Your task to perform on an android device: allow notifications from all sites in the chrome app Image 0: 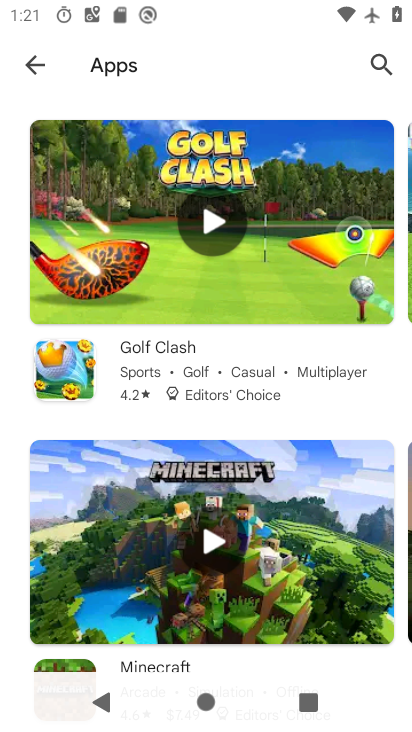
Step 0: press home button
Your task to perform on an android device: allow notifications from all sites in the chrome app Image 1: 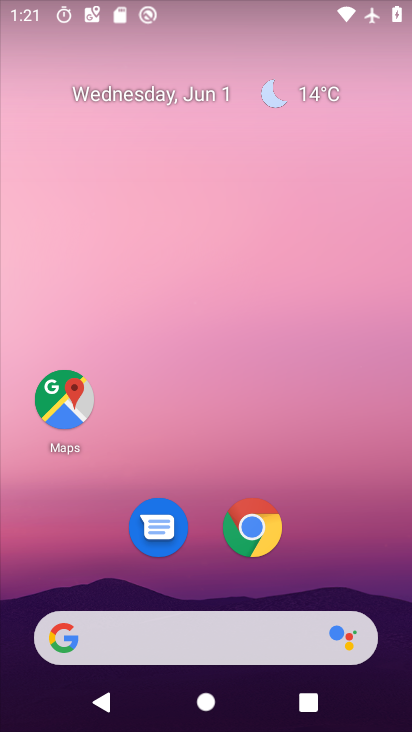
Step 1: click (258, 528)
Your task to perform on an android device: allow notifications from all sites in the chrome app Image 2: 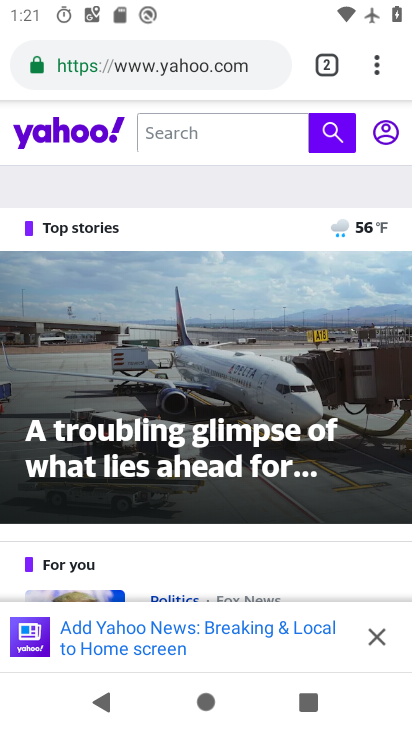
Step 2: click (376, 71)
Your task to perform on an android device: allow notifications from all sites in the chrome app Image 3: 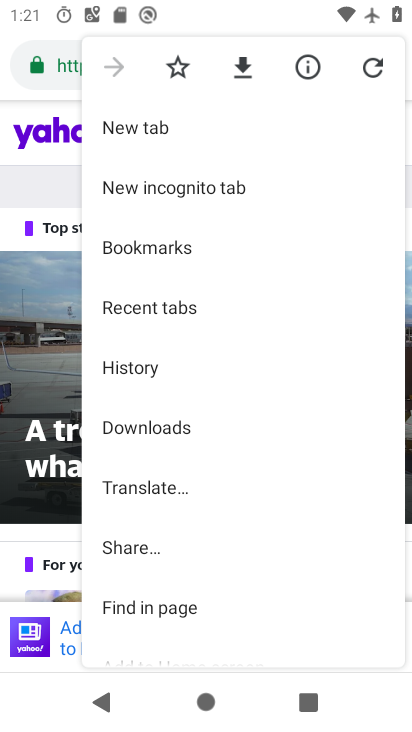
Step 3: drag from (271, 559) to (278, 166)
Your task to perform on an android device: allow notifications from all sites in the chrome app Image 4: 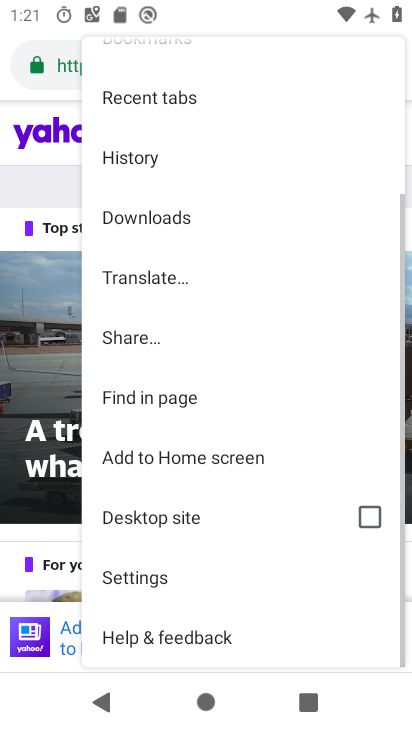
Step 4: click (147, 580)
Your task to perform on an android device: allow notifications from all sites in the chrome app Image 5: 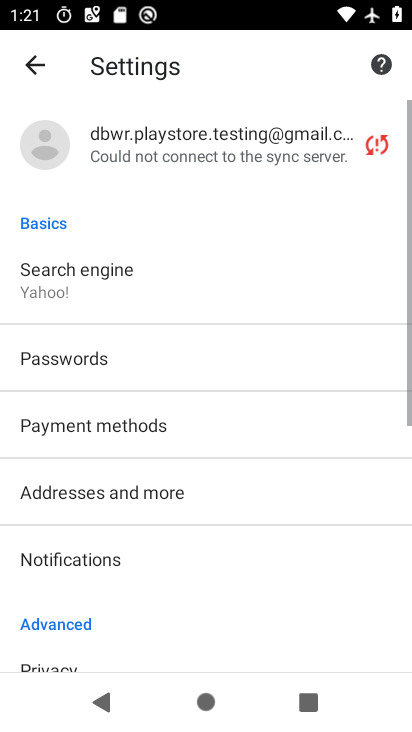
Step 5: drag from (207, 577) to (175, 136)
Your task to perform on an android device: allow notifications from all sites in the chrome app Image 6: 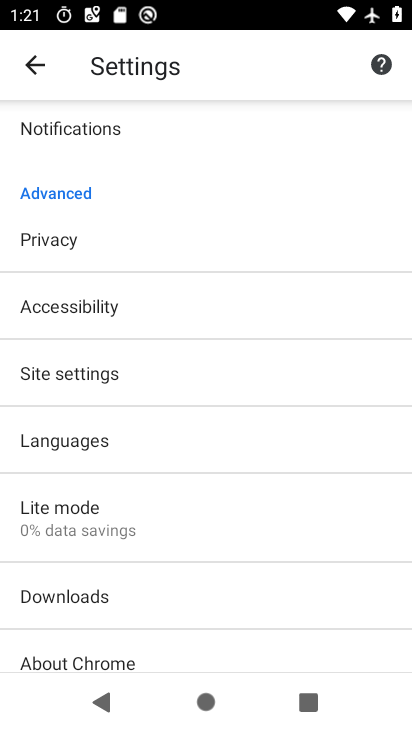
Step 6: click (80, 371)
Your task to perform on an android device: allow notifications from all sites in the chrome app Image 7: 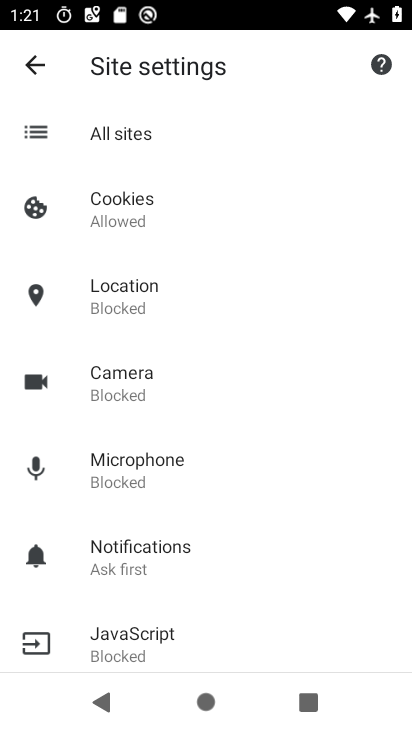
Step 7: click (147, 545)
Your task to perform on an android device: allow notifications from all sites in the chrome app Image 8: 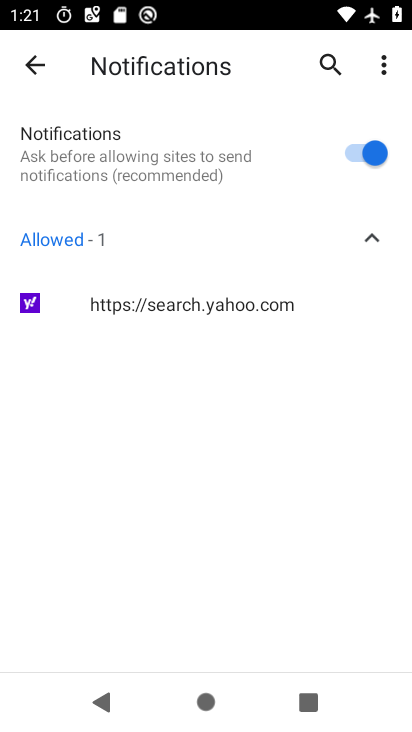
Step 8: task complete